Your task to perform on an android device: open app "Yahoo Mail" (install if not already installed) and enter user name: "lawsuit@inbox.com" and password: "pooch" Image 0: 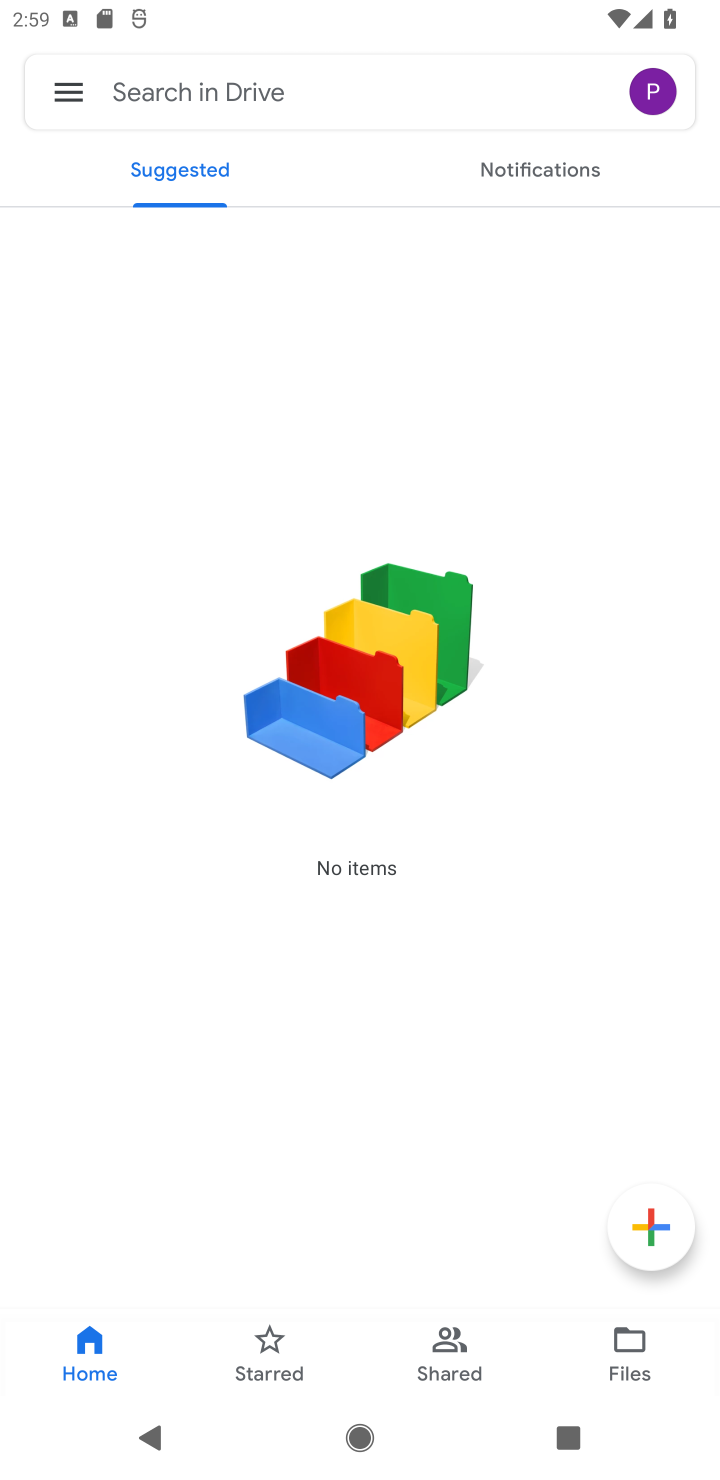
Step 0: press home button
Your task to perform on an android device: open app "Yahoo Mail" (install if not already installed) and enter user name: "lawsuit@inbox.com" and password: "pooch" Image 1: 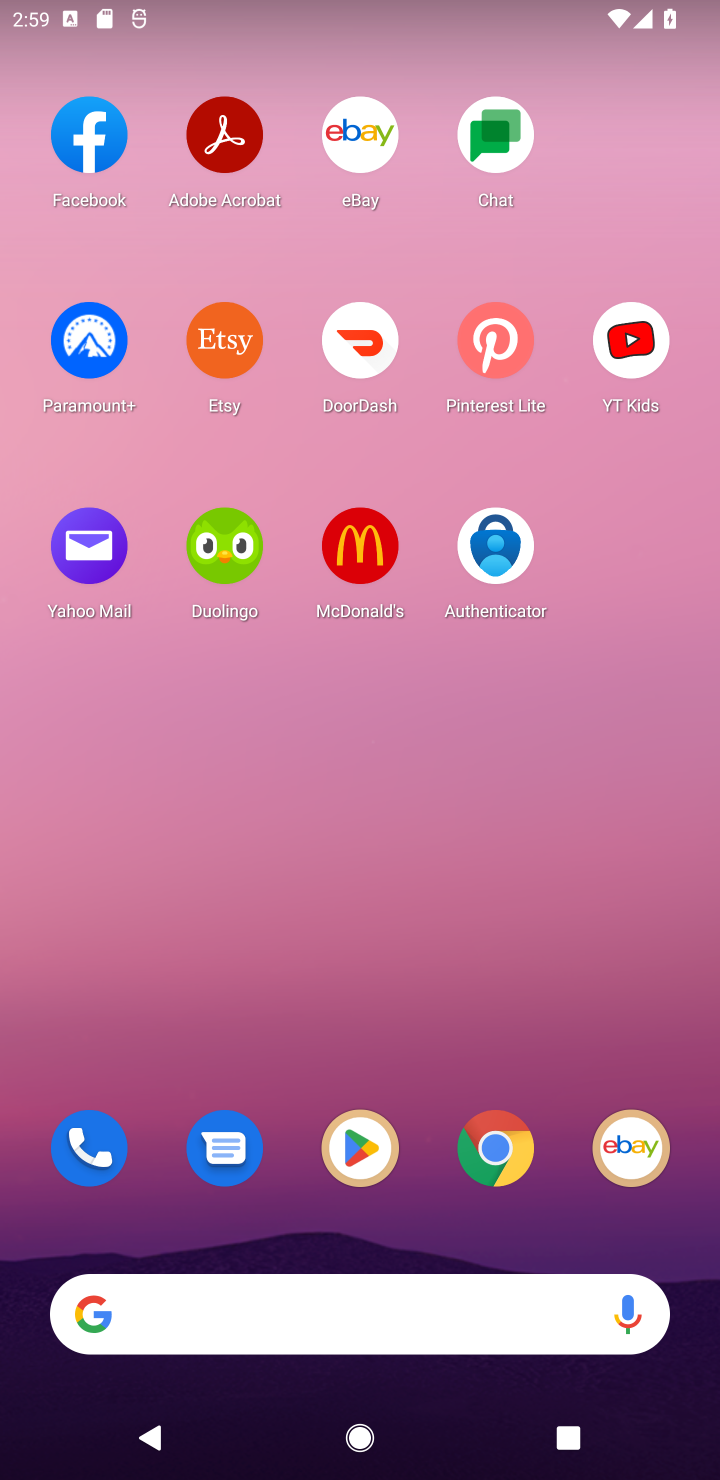
Step 1: drag from (436, 1255) to (469, 329)
Your task to perform on an android device: open app "Yahoo Mail" (install if not already installed) and enter user name: "lawsuit@inbox.com" and password: "pooch" Image 2: 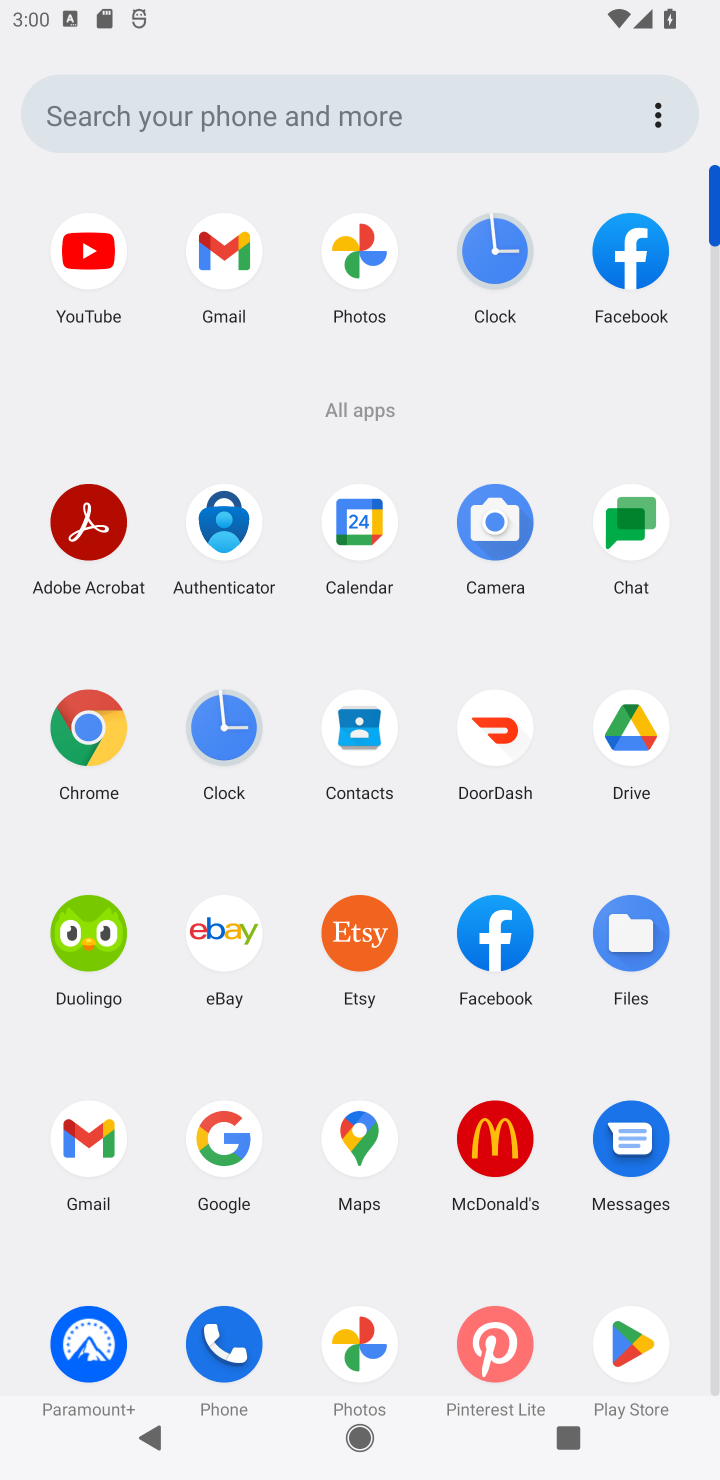
Step 2: click (632, 1346)
Your task to perform on an android device: open app "Yahoo Mail" (install if not already installed) and enter user name: "lawsuit@inbox.com" and password: "pooch" Image 3: 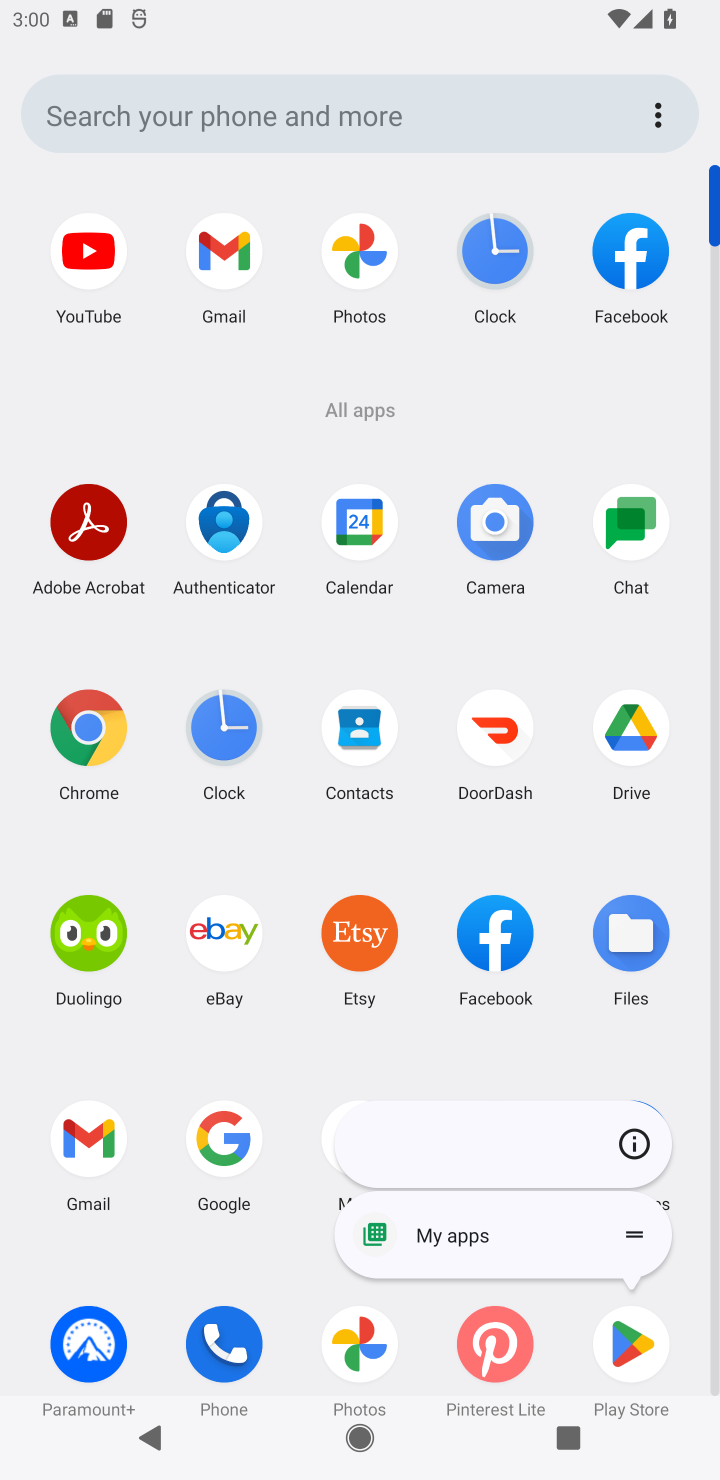
Step 3: click (632, 1346)
Your task to perform on an android device: open app "Yahoo Mail" (install if not already installed) and enter user name: "lawsuit@inbox.com" and password: "pooch" Image 4: 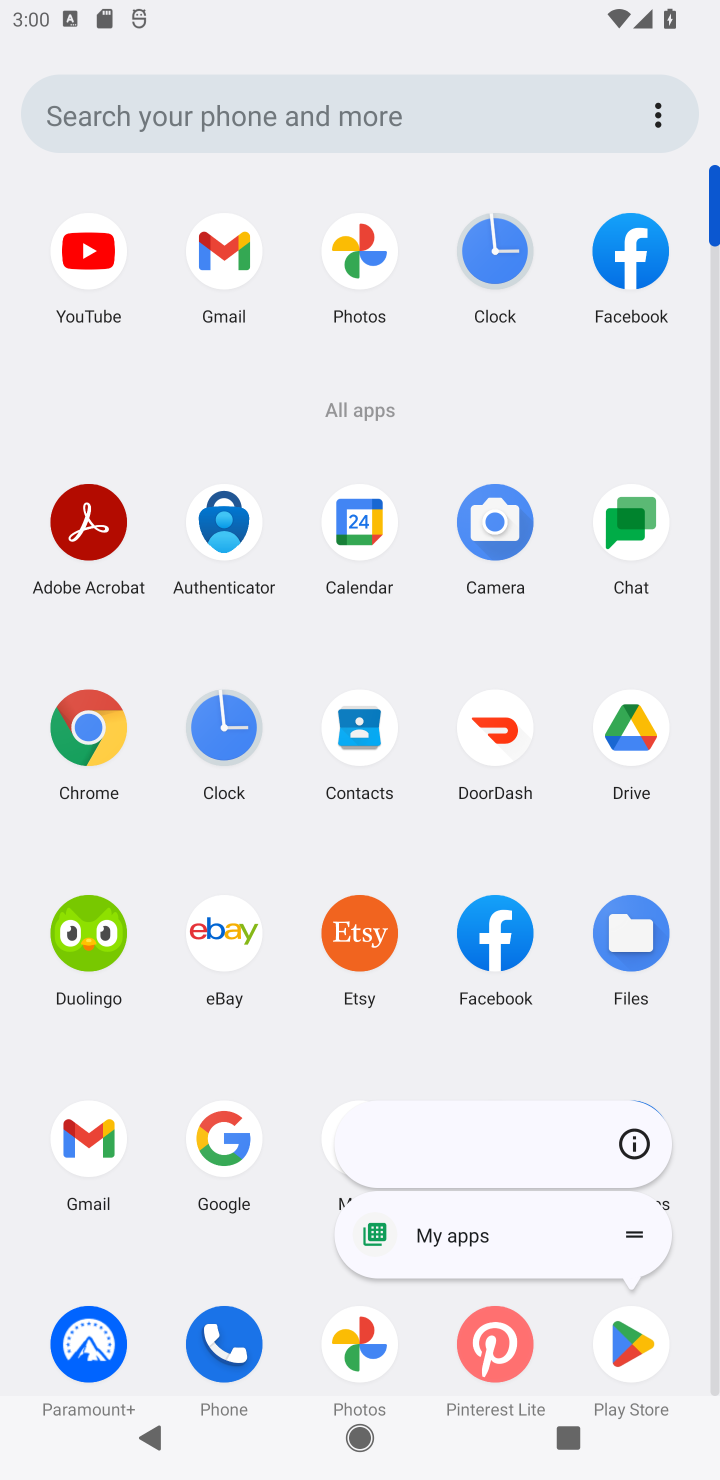
Step 4: click (632, 1346)
Your task to perform on an android device: open app "Yahoo Mail" (install if not already installed) and enter user name: "lawsuit@inbox.com" and password: "pooch" Image 5: 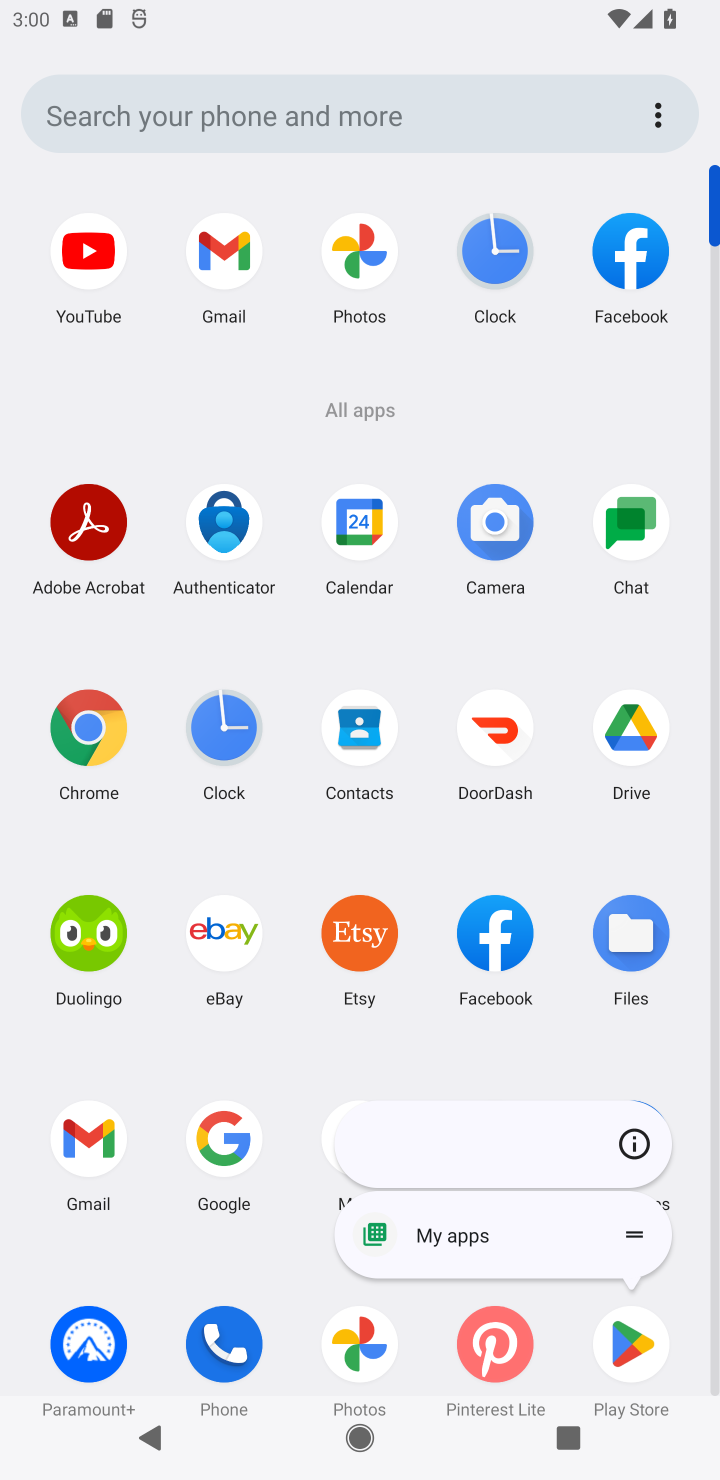
Step 5: click (632, 1335)
Your task to perform on an android device: open app "Yahoo Mail" (install if not already installed) and enter user name: "lawsuit@inbox.com" and password: "pooch" Image 6: 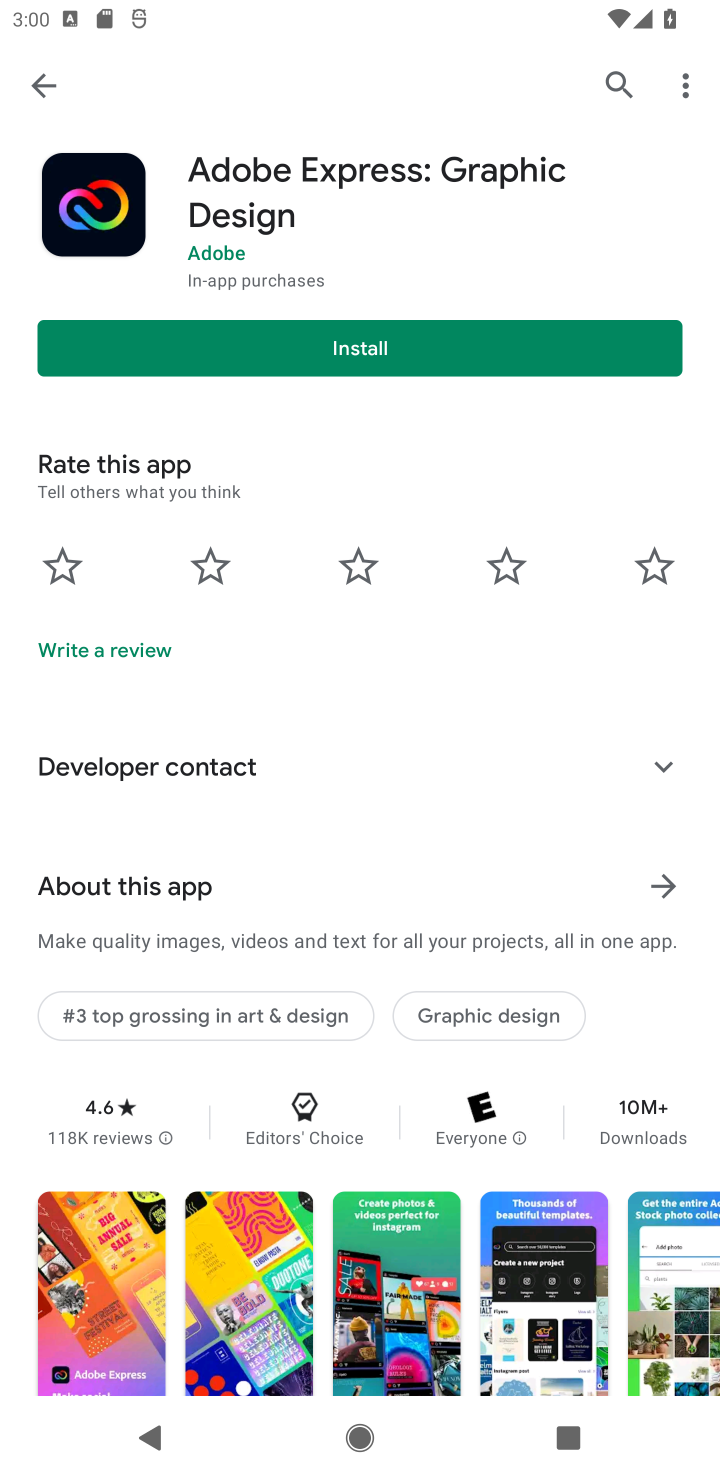
Step 6: click (51, 90)
Your task to perform on an android device: open app "Yahoo Mail" (install if not already installed) and enter user name: "lawsuit@inbox.com" and password: "pooch" Image 7: 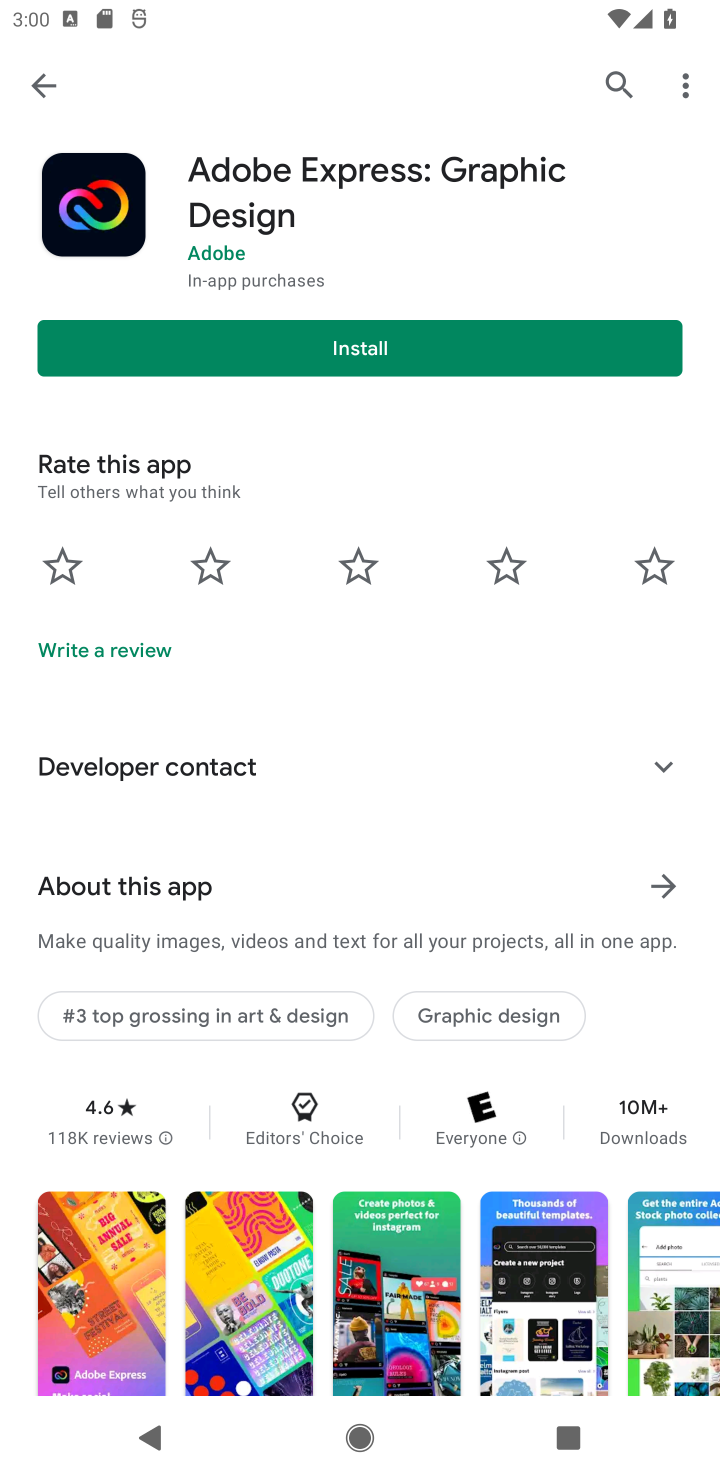
Step 7: click (51, 75)
Your task to perform on an android device: open app "Yahoo Mail" (install if not already installed) and enter user name: "lawsuit@inbox.com" and password: "pooch" Image 8: 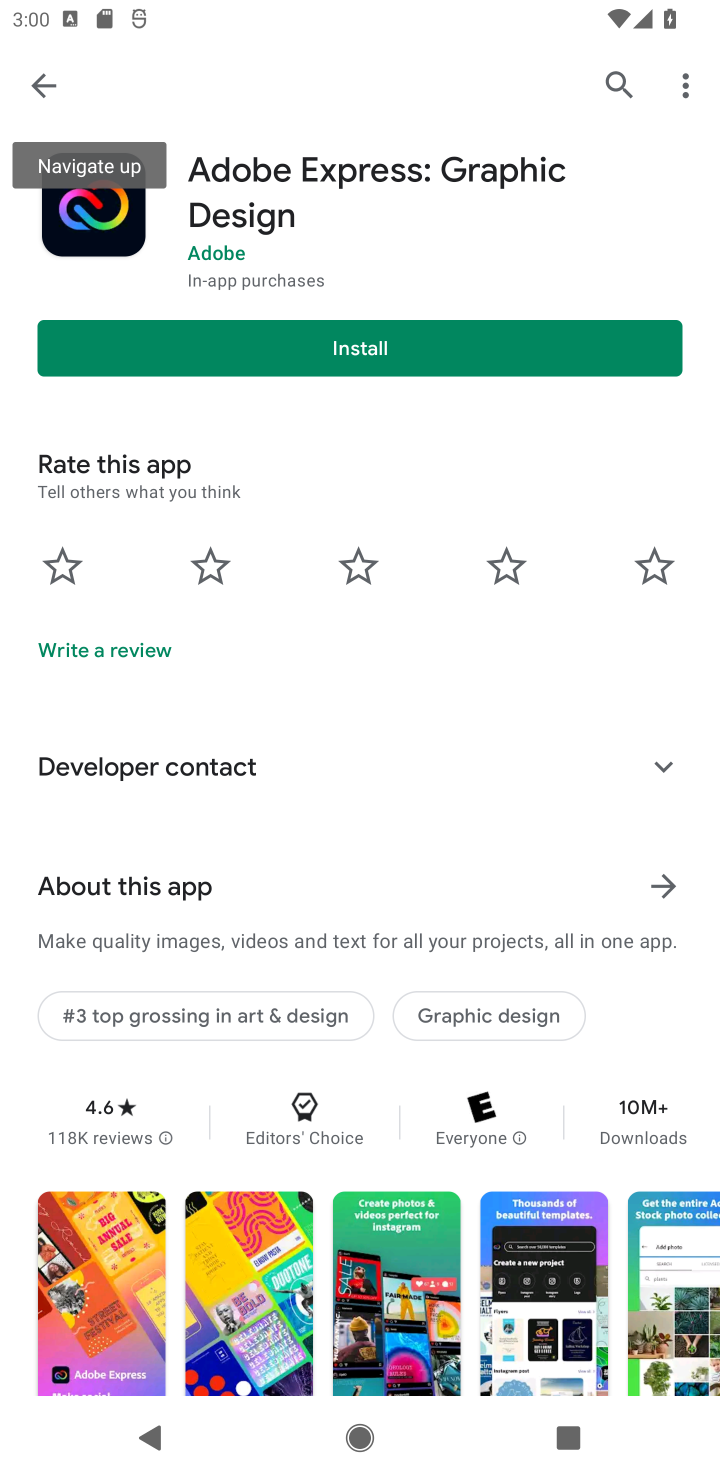
Step 8: click (51, 75)
Your task to perform on an android device: open app "Yahoo Mail" (install if not already installed) and enter user name: "lawsuit@inbox.com" and password: "pooch" Image 9: 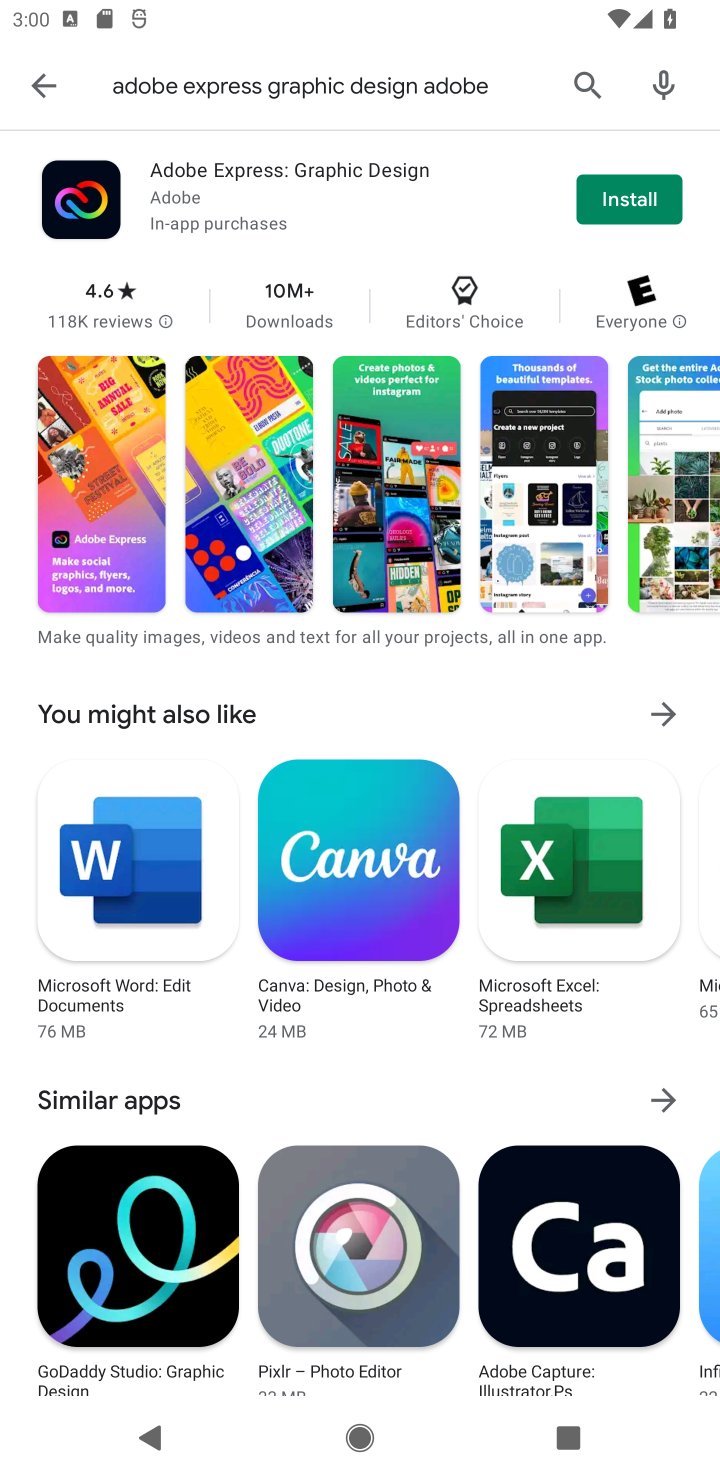
Step 9: click (584, 95)
Your task to perform on an android device: open app "Yahoo Mail" (install if not already installed) and enter user name: "lawsuit@inbox.com" and password: "pooch" Image 10: 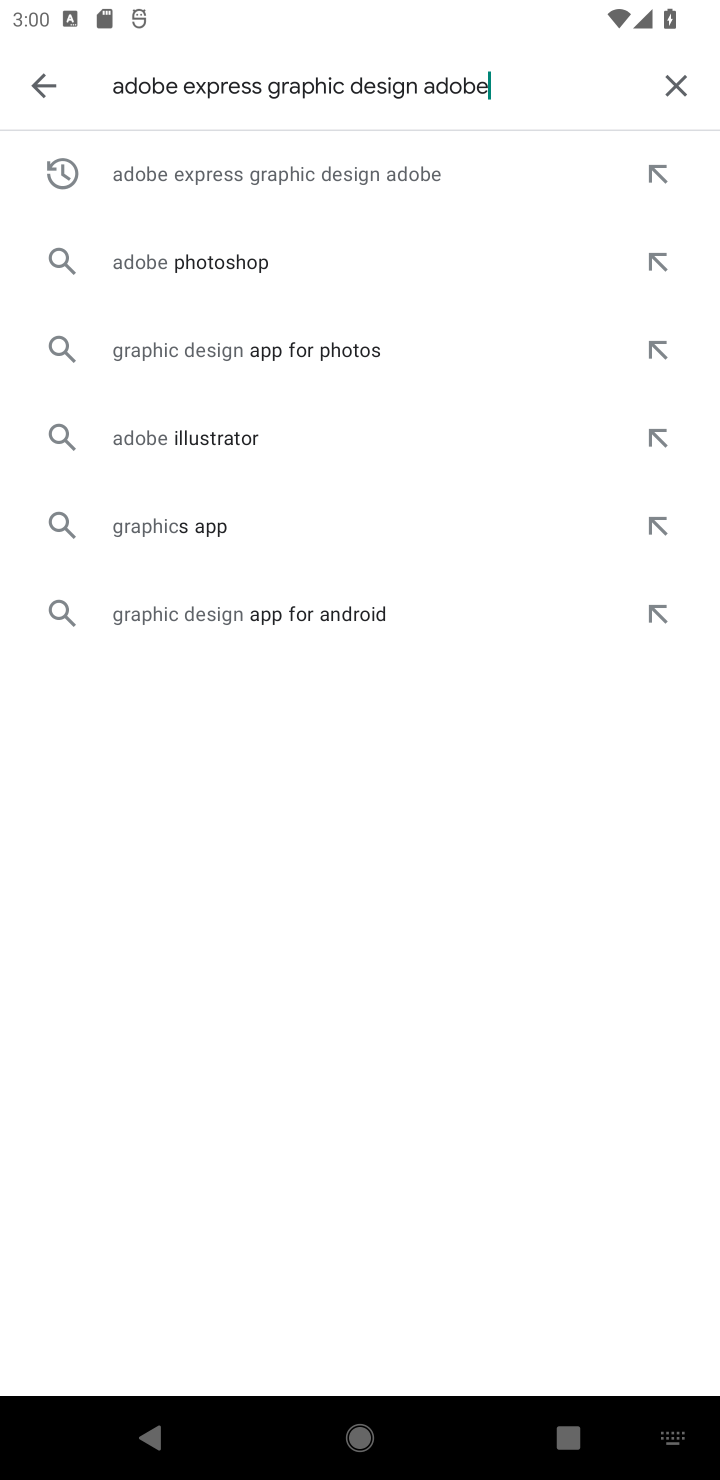
Step 10: click (658, 72)
Your task to perform on an android device: open app "Yahoo Mail" (install if not already installed) and enter user name: "lawsuit@inbox.com" and password: "pooch" Image 11: 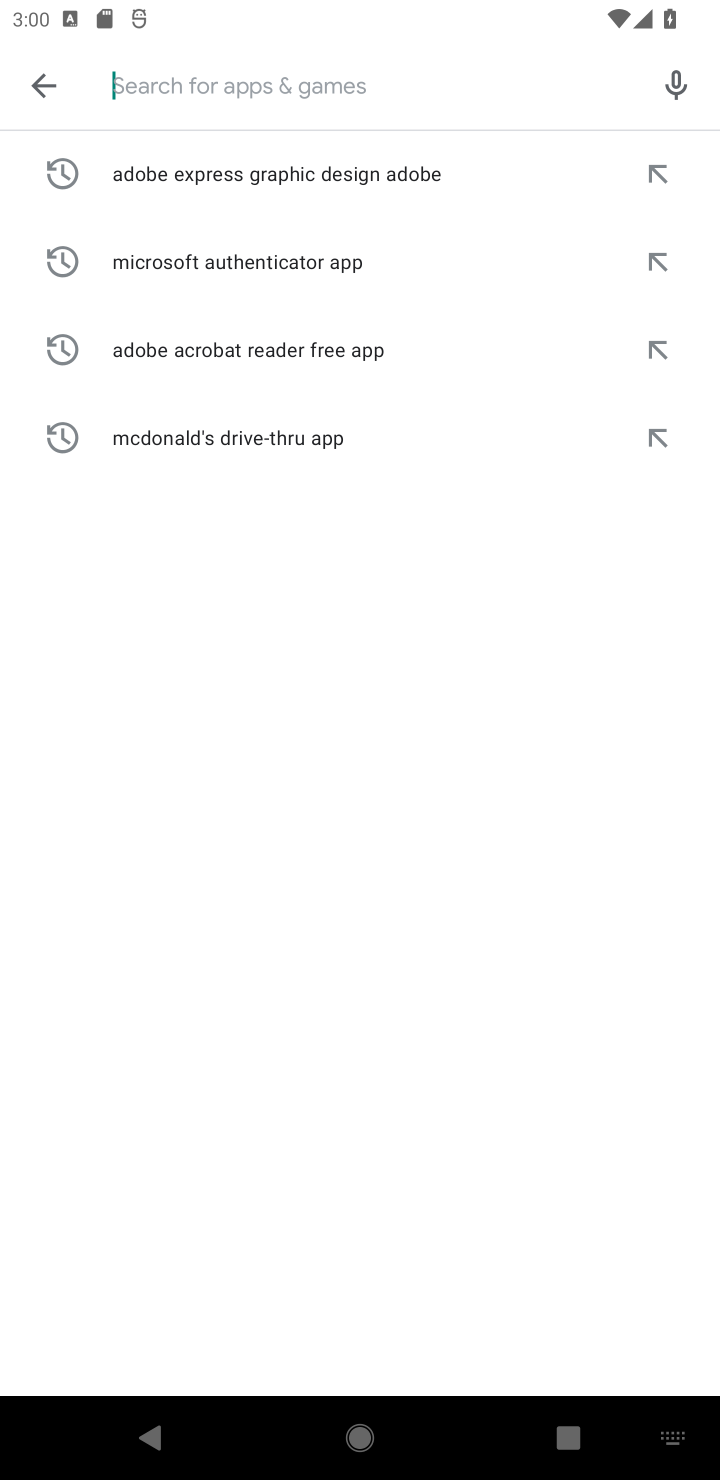
Step 11: click (290, 76)
Your task to perform on an android device: open app "Yahoo Mail" (install if not already installed) and enter user name: "lawsuit@inbox.com" and password: "pooch" Image 12: 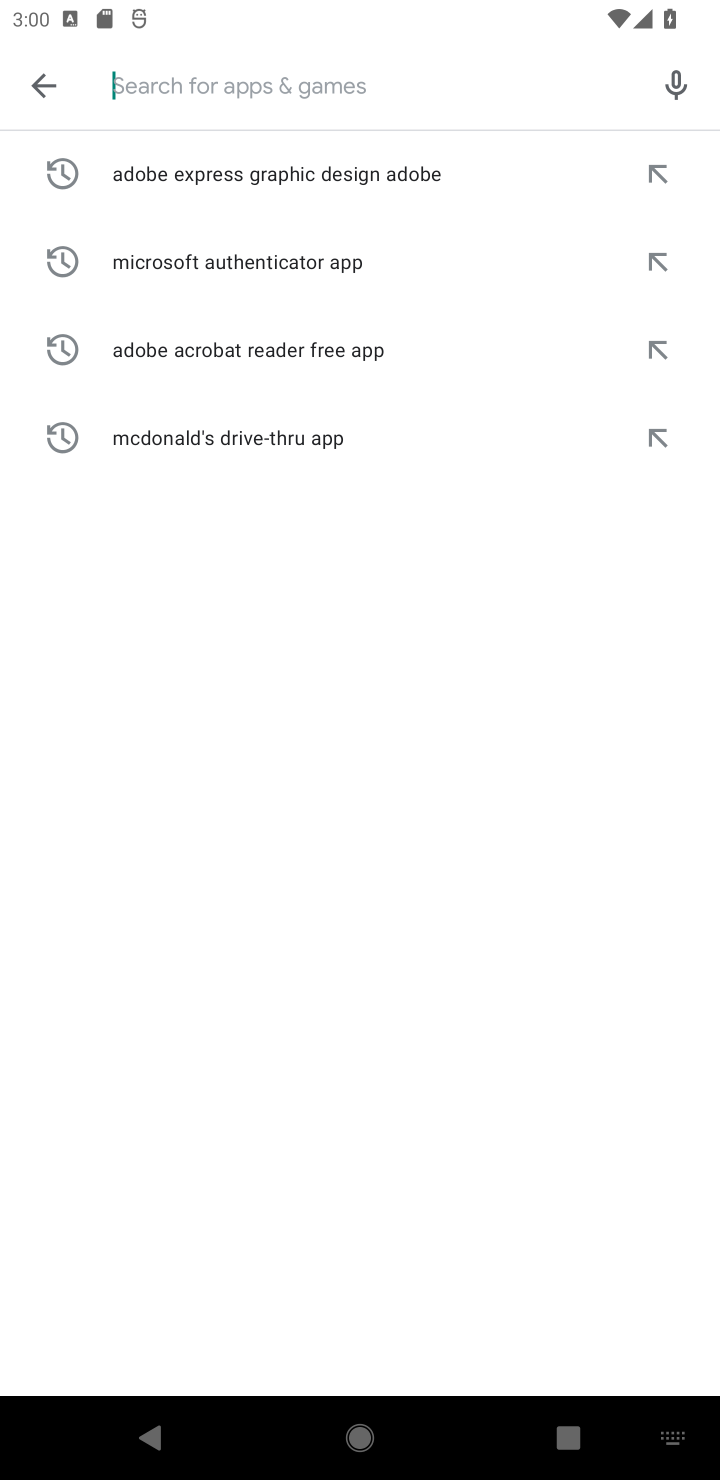
Step 12: type "Yahoo Mail "
Your task to perform on an android device: open app "Yahoo Mail" (install if not already installed) and enter user name: "lawsuit@inbox.com" and password: "pooch" Image 13: 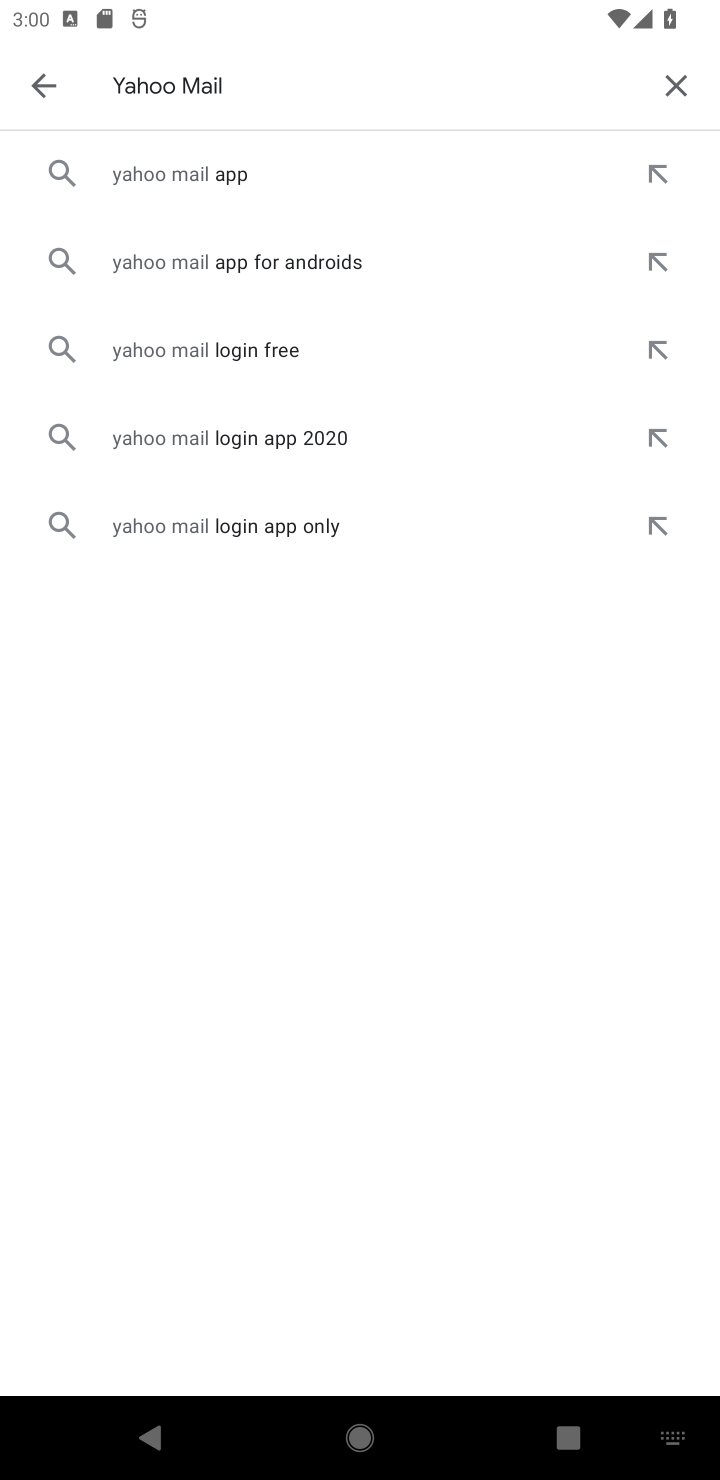
Step 13: click (201, 183)
Your task to perform on an android device: open app "Yahoo Mail" (install if not already installed) and enter user name: "lawsuit@inbox.com" and password: "pooch" Image 14: 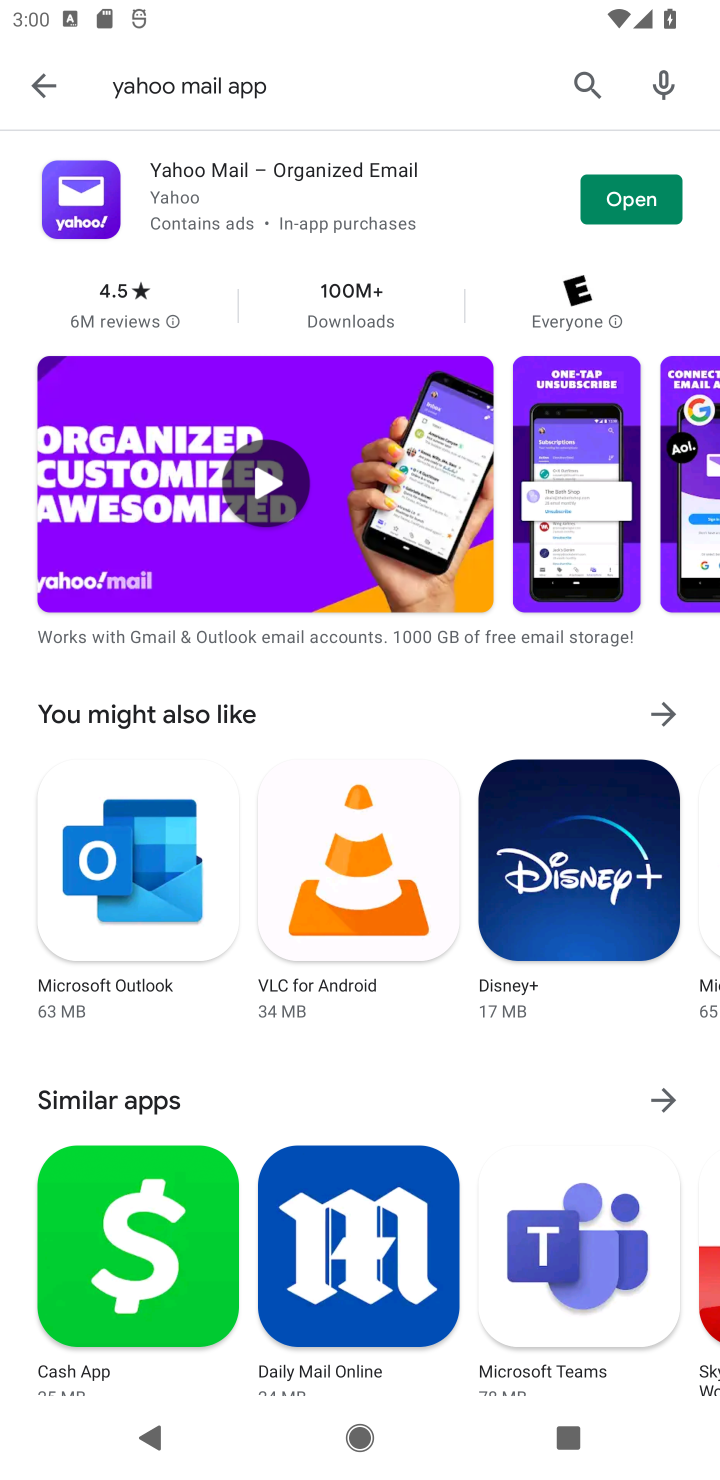
Step 14: click (639, 195)
Your task to perform on an android device: open app "Yahoo Mail" (install if not already installed) and enter user name: "lawsuit@inbox.com" and password: "pooch" Image 15: 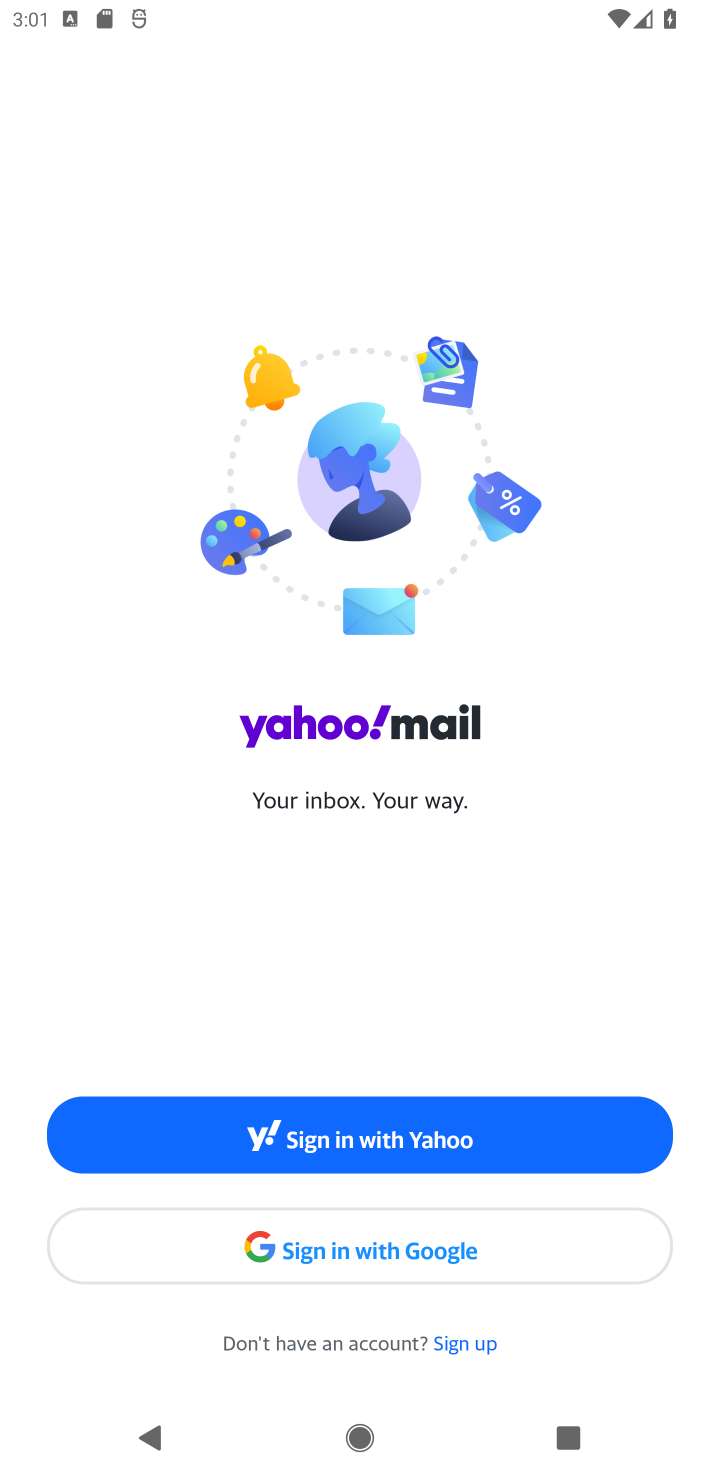
Step 15: task complete